Your task to perform on an android device: turn pop-ups on in chrome Image 0: 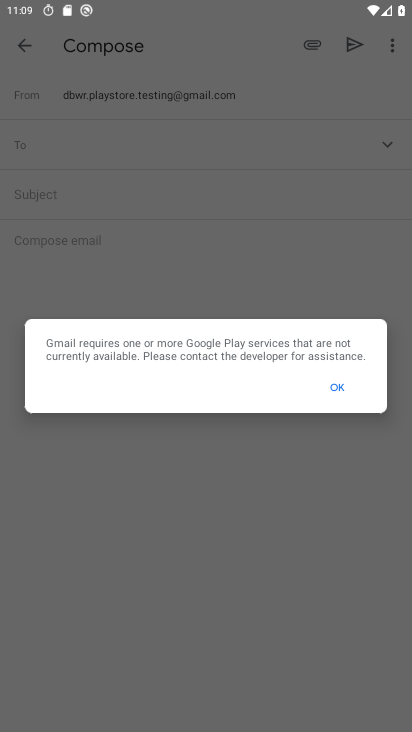
Step 0: press home button
Your task to perform on an android device: turn pop-ups on in chrome Image 1: 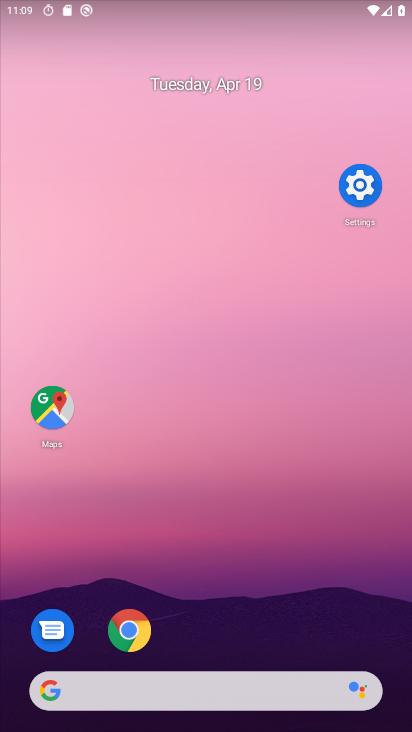
Step 1: drag from (245, 561) to (318, 203)
Your task to perform on an android device: turn pop-ups on in chrome Image 2: 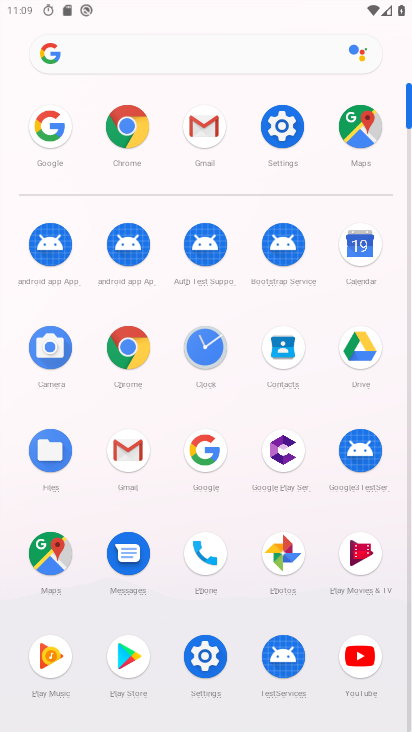
Step 2: click (141, 354)
Your task to perform on an android device: turn pop-ups on in chrome Image 3: 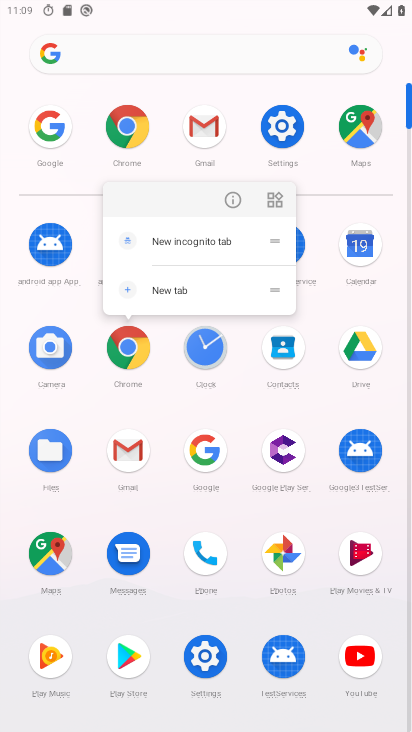
Step 3: click (140, 354)
Your task to perform on an android device: turn pop-ups on in chrome Image 4: 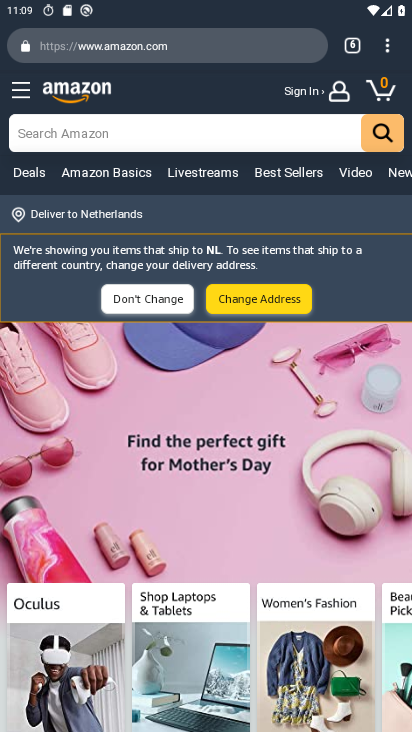
Step 4: click (387, 54)
Your task to perform on an android device: turn pop-ups on in chrome Image 5: 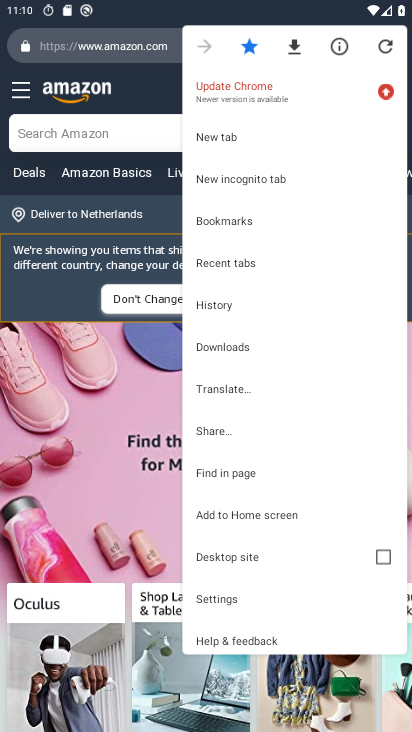
Step 5: click (275, 605)
Your task to perform on an android device: turn pop-ups on in chrome Image 6: 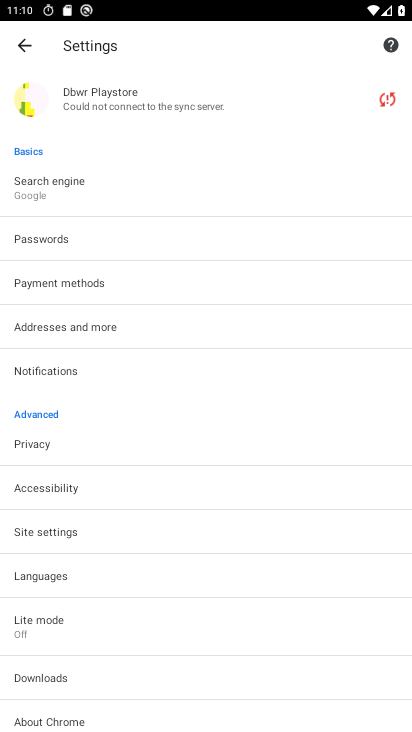
Step 6: click (45, 538)
Your task to perform on an android device: turn pop-ups on in chrome Image 7: 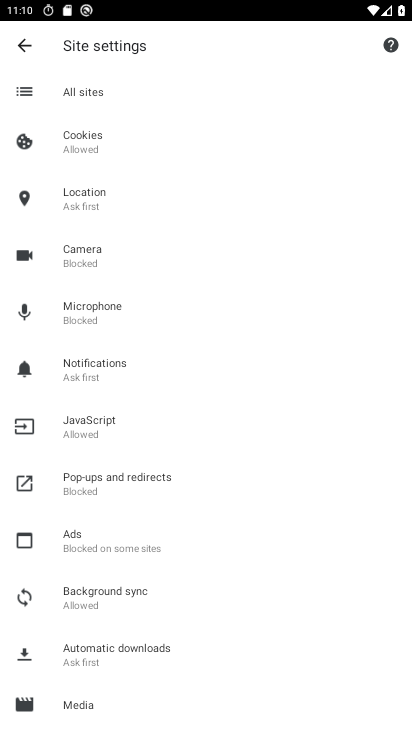
Step 7: drag from (128, 619) to (211, 415)
Your task to perform on an android device: turn pop-ups on in chrome Image 8: 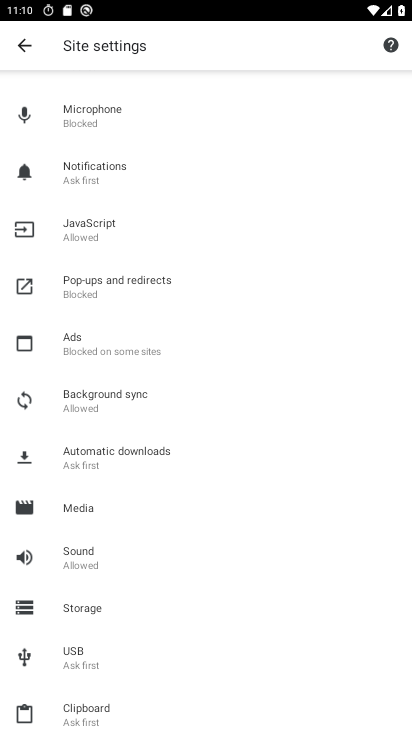
Step 8: click (172, 297)
Your task to perform on an android device: turn pop-ups on in chrome Image 9: 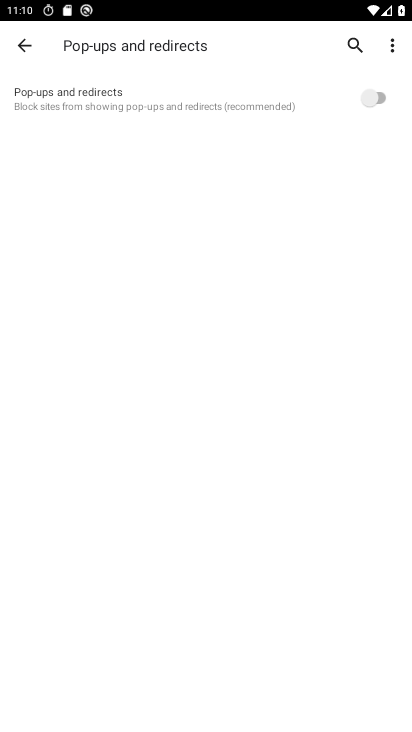
Step 9: click (377, 94)
Your task to perform on an android device: turn pop-ups on in chrome Image 10: 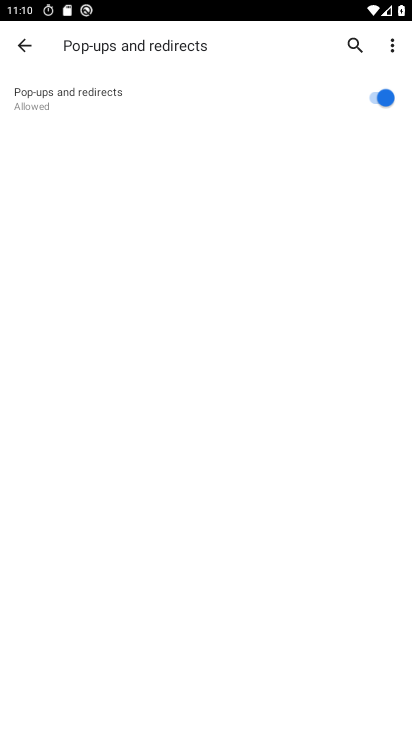
Step 10: task complete